Your task to perform on an android device: Search for seafood restaurants on Google Maps Image 0: 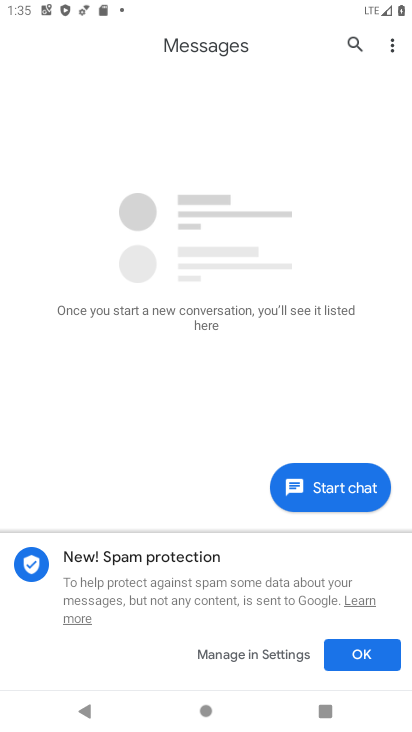
Step 0: press home button
Your task to perform on an android device: Search for seafood restaurants on Google Maps Image 1: 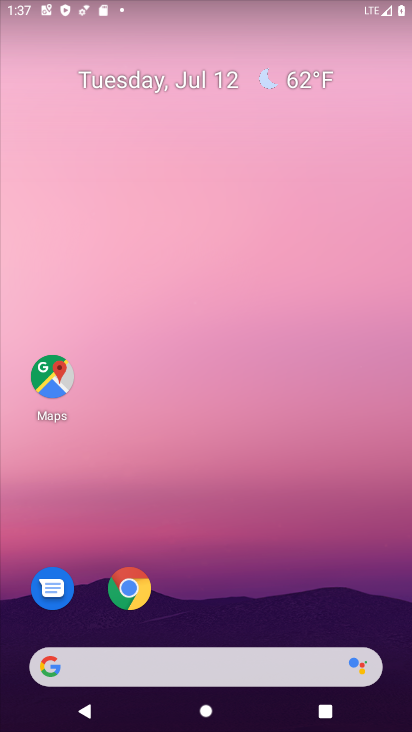
Step 1: click (39, 378)
Your task to perform on an android device: Search for seafood restaurants on Google Maps Image 2: 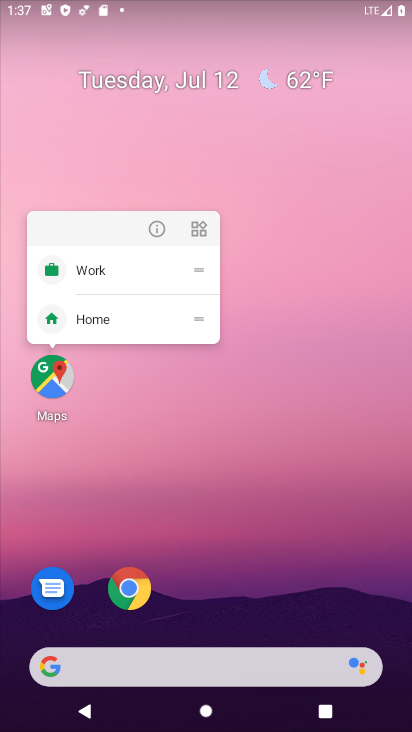
Step 2: click (68, 378)
Your task to perform on an android device: Search for seafood restaurants on Google Maps Image 3: 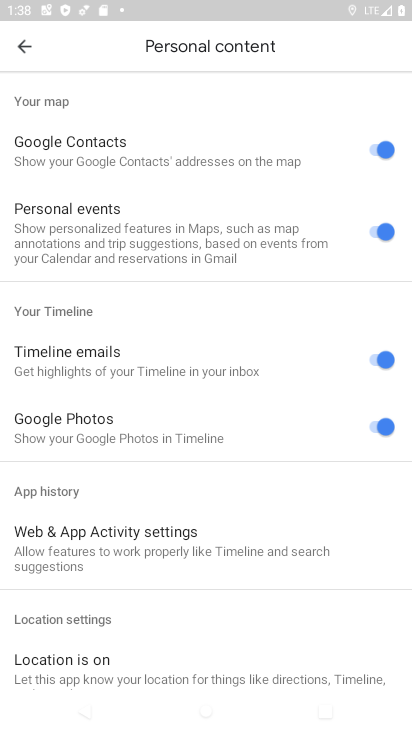
Step 3: click (24, 40)
Your task to perform on an android device: Search for seafood restaurants on Google Maps Image 4: 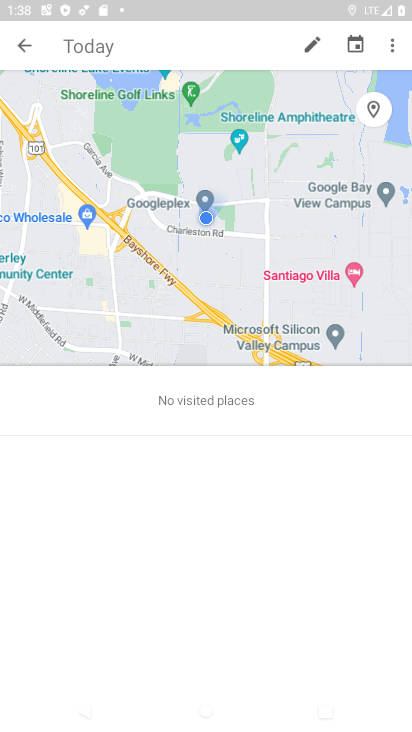
Step 4: click (16, 48)
Your task to perform on an android device: Search for seafood restaurants on Google Maps Image 5: 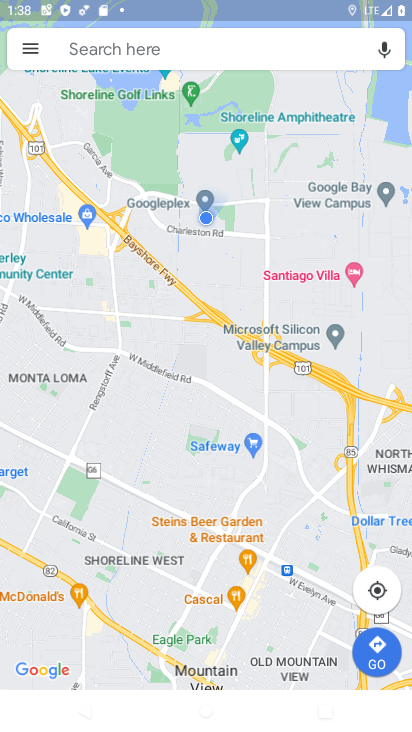
Step 5: click (179, 48)
Your task to perform on an android device: Search for seafood restaurants on Google Maps Image 6: 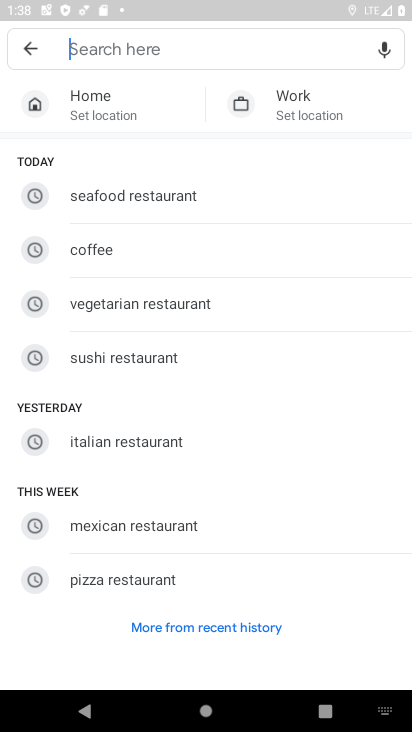
Step 6: click (179, 193)
Your task to perform on an android device: Search for seafood restaurants on Google Maps Image 7: 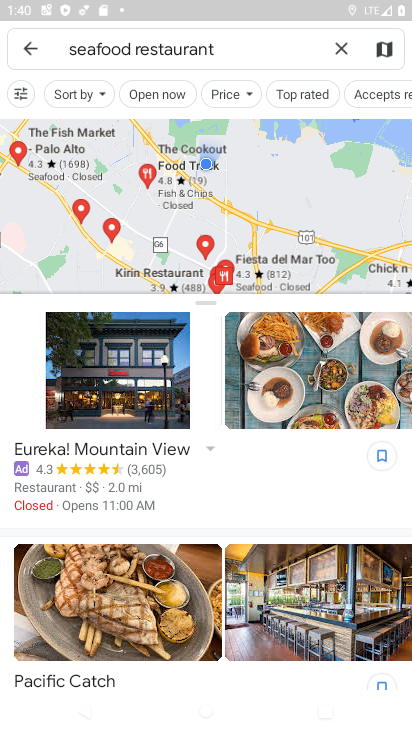
Step 7: task complete